Your task to perform on an android device: Open calendar and show me the third week of next month Image 0: 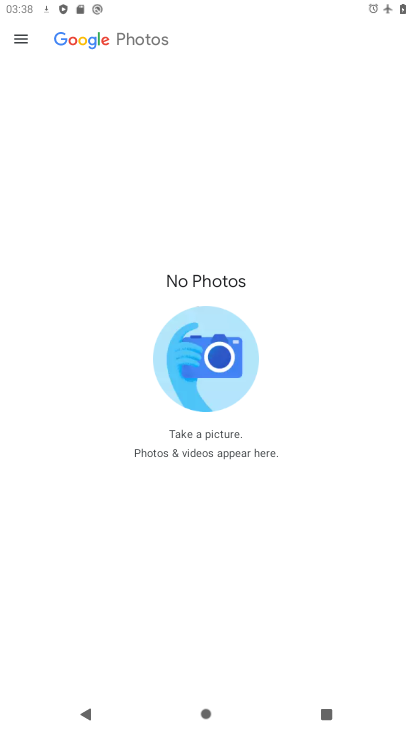
Step 0: press home button
Your task to perform on an android device: Open calendar and show me the third week of next month Image 1: 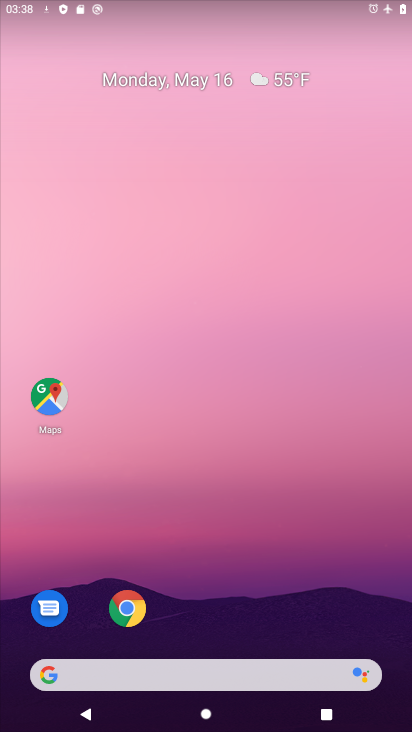
Step 1: drag from (252, 572) to (254, 204)
Your task to perform on an android device: Open calendar and show me the third week of next month Image 2: 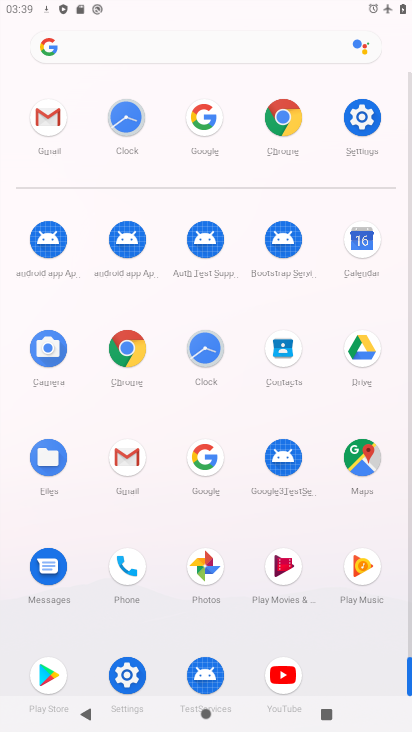
Step 2: click (360, 240)
Your task to perform on an android device: Open calendar and show me the third week of next month Image 3: 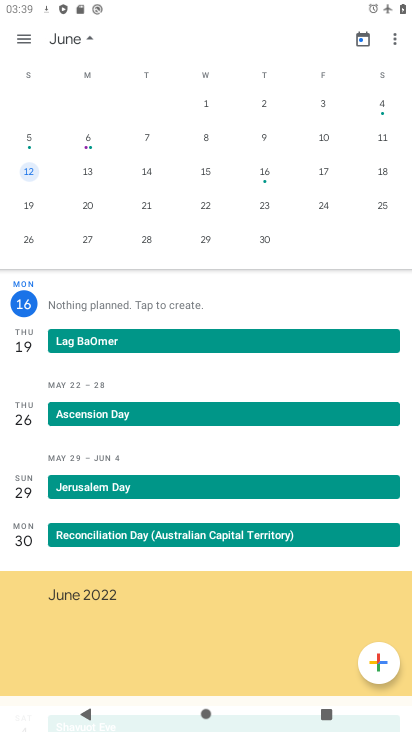
Step 3: click (81, 39)
Your task to perform on an android device: Open calendar and show me the third week of next month Image 4: 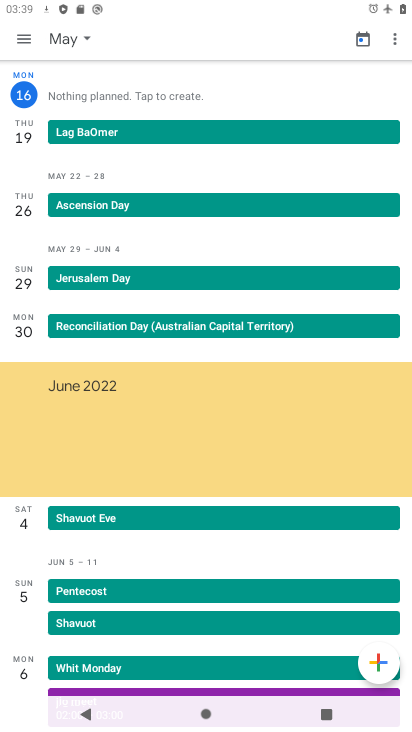
Step 4: click (81, 39)
Your task to perform on an android device: Open calendar and show me the third week of next month Image 5: 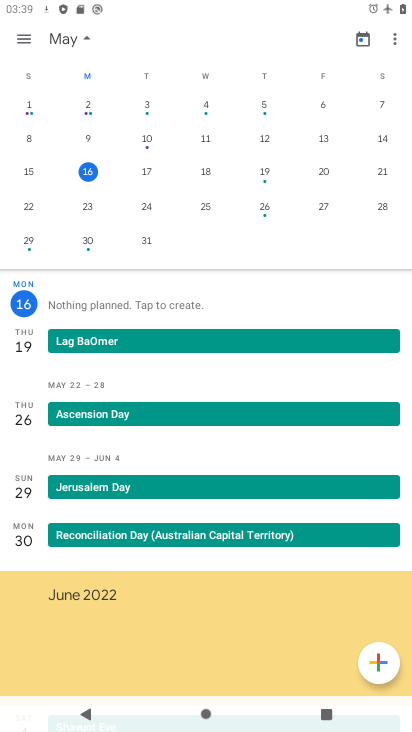
Step 5: drag from (341, 153) to (14, 127)
Your task to perform on an android device: Open calendar and show me the third week of next month Image 6: 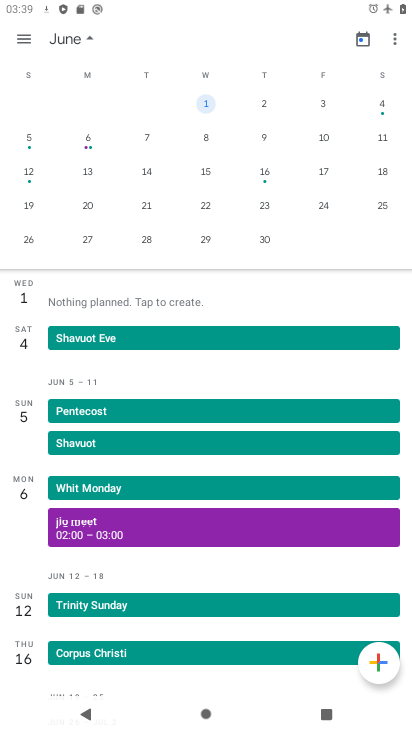
Step 6: click (92, 163)
Your task to perform on an android device: Open calendar and show me the third week of next month Image 7: 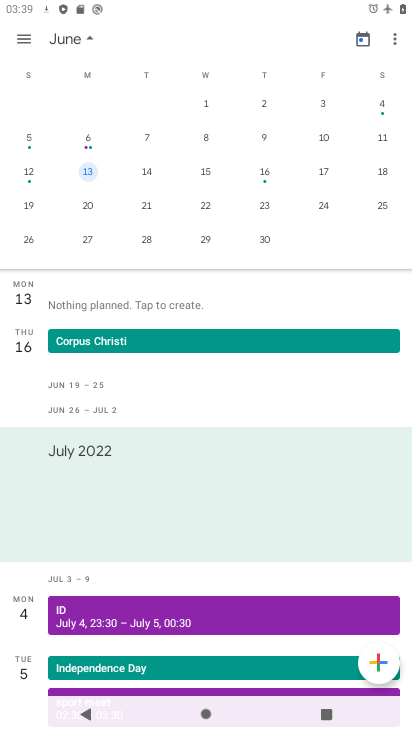
Step 7: click (34, 168)
Your task to perform on an android device: Open calendar and show me the third week of next month Image 8: 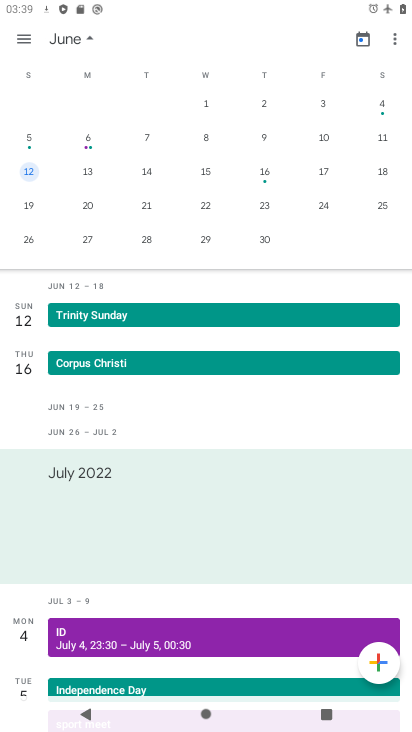
Step 8: task complete